Your task to perform on an android device: set an alarm Image 0: 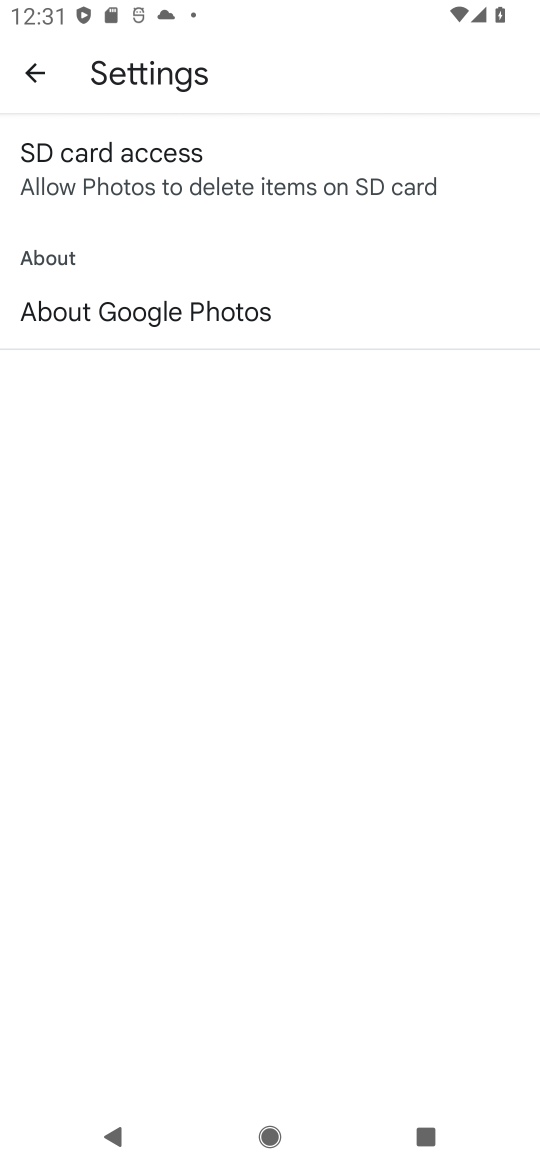
Step 0: press home button
Your task to perform on an android device: set an alarm Image 1: 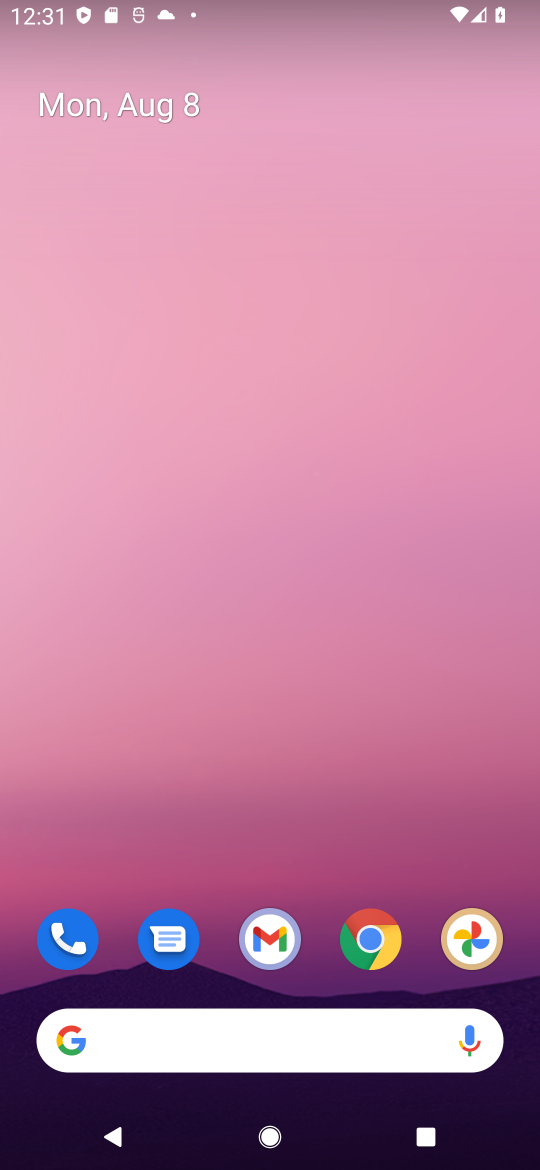
Step 1: drag from (183, 1030) to (423, 169)
Your task to perform on an android device: set an alarm Image 2: 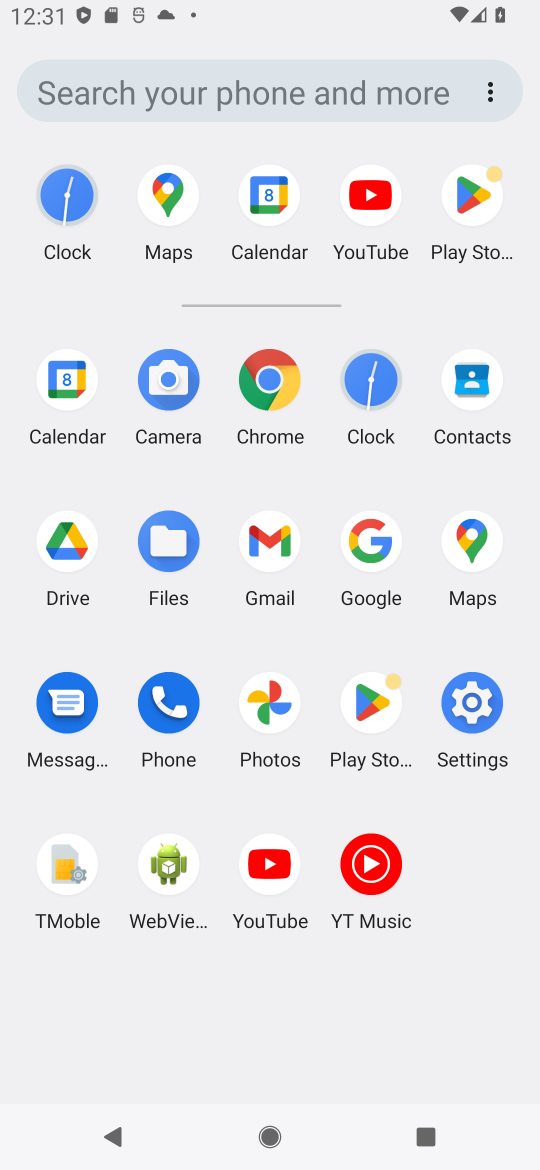
Step 2: click (70, 196)
Your task to perform on an android device: set an alarm Image 3: 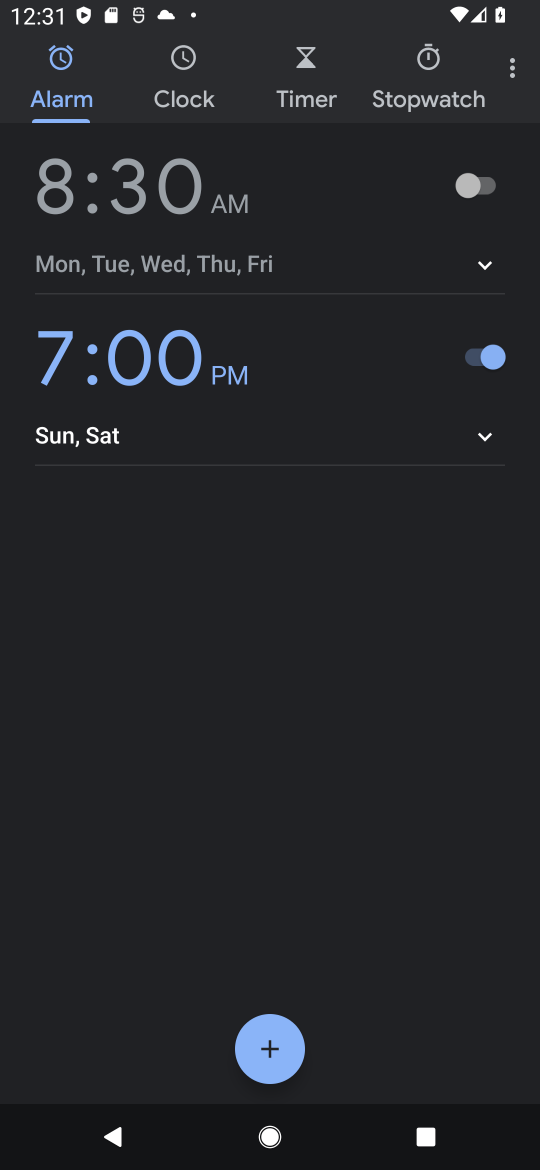
Step 3: click (269, 1045)
Your task to perform on an android device: set an alarm Image 4: 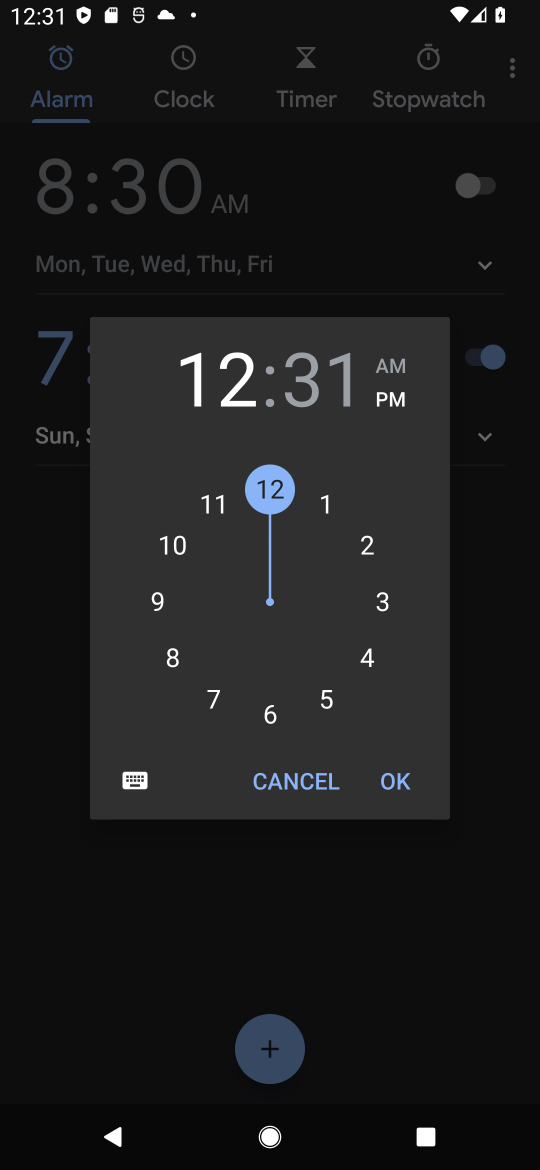
Step 4: click (270, 728)
Your task to perform on an android device: set an alarm Image 5: 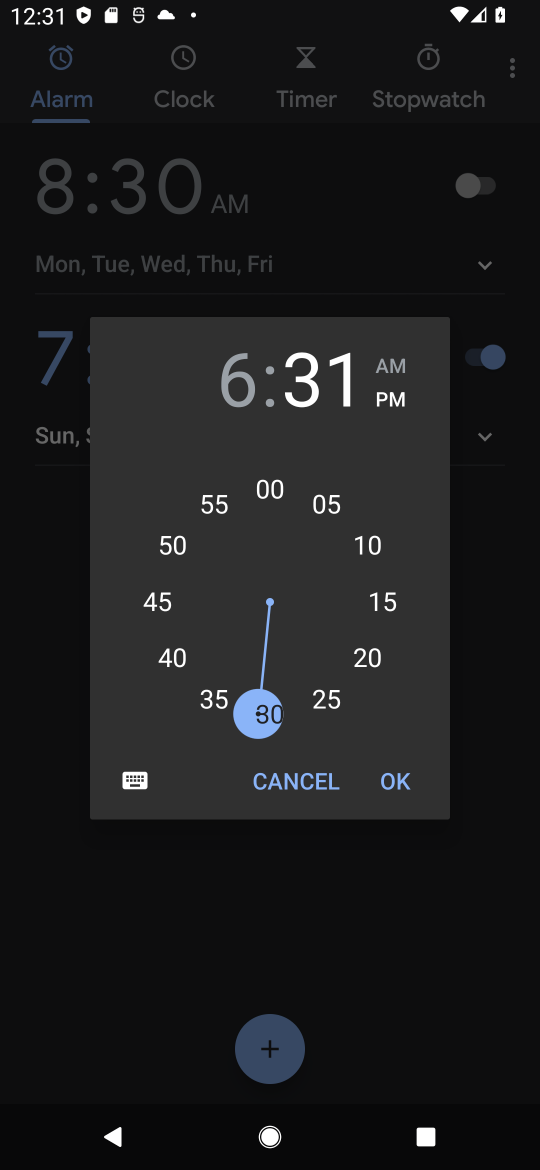
Step 5: click (167, 607)
Your task to perform on an android device: set an alarm Image 6: 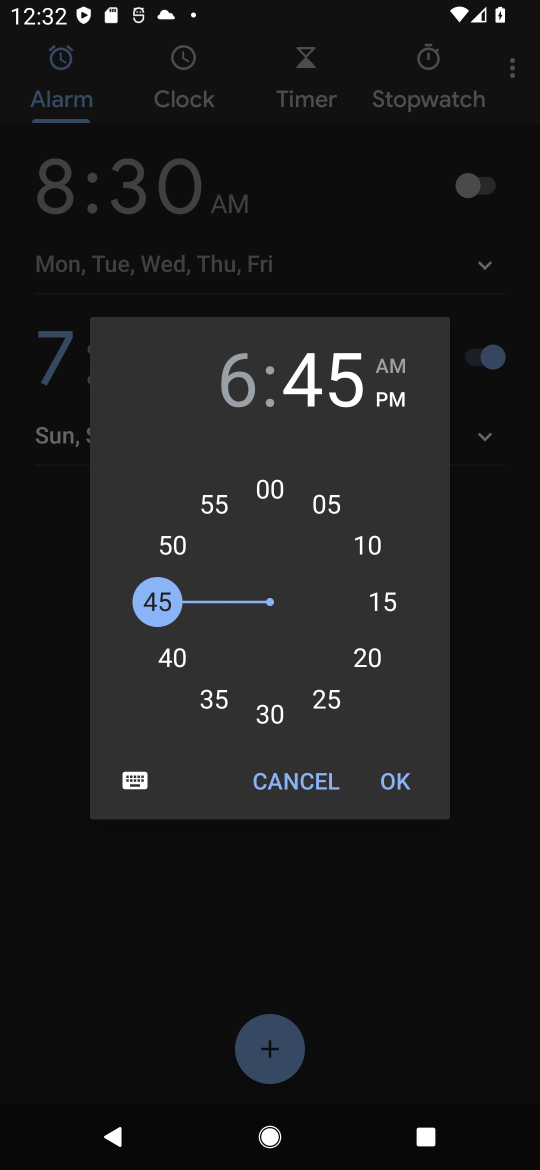
Step 6: click (388, 365)
Your task to perform on an android device: set an alarm Image 7: 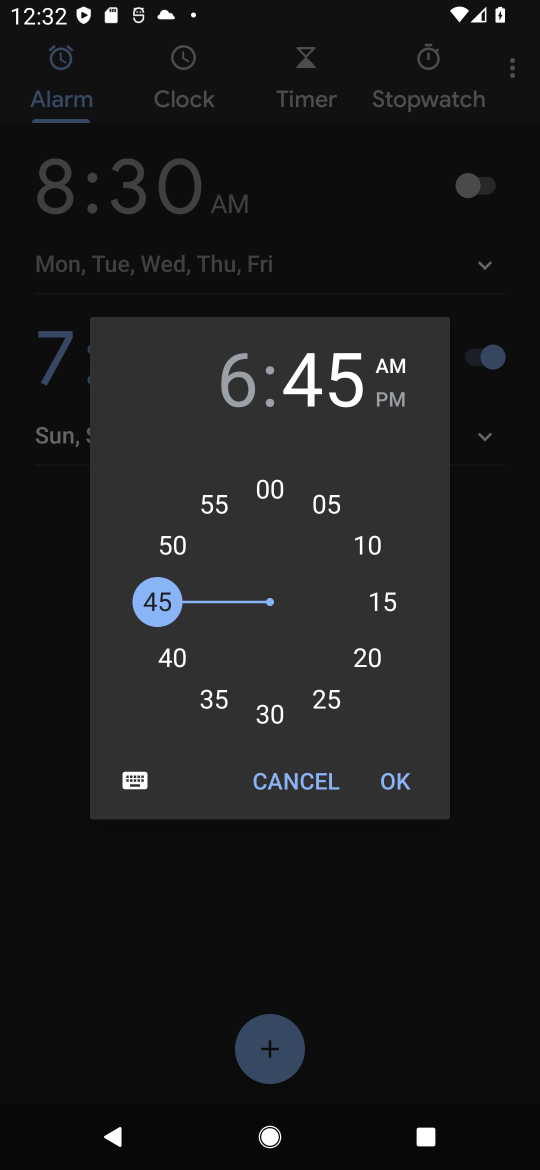
Step 7: click (399, 781)
Your task to perform on an android device: set an alarm Image 8: 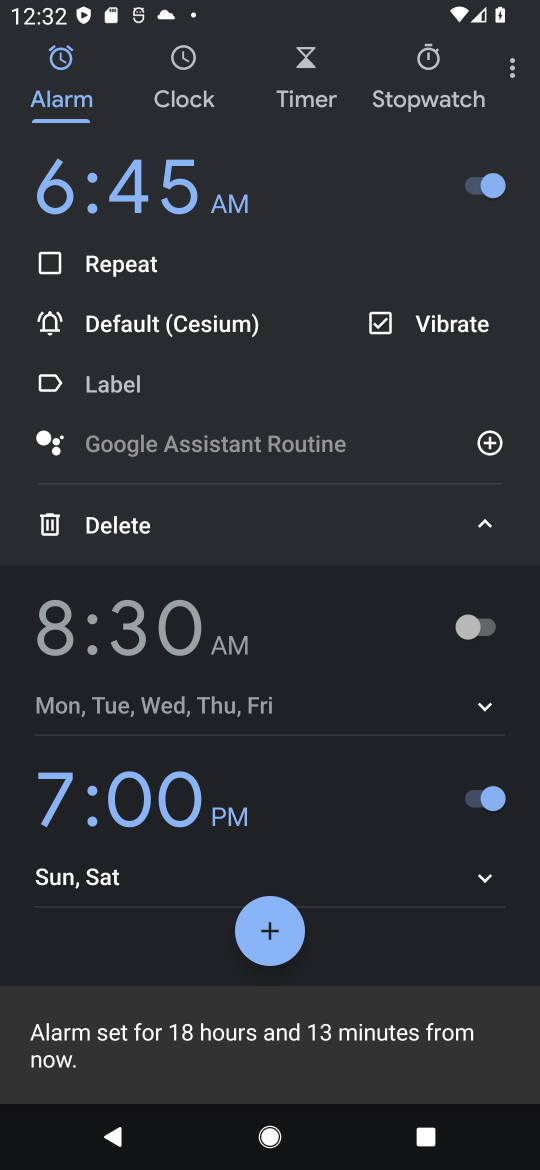
Step 8: click (497, 519)
Your task to perform on an android device: set an alarm Image 9: 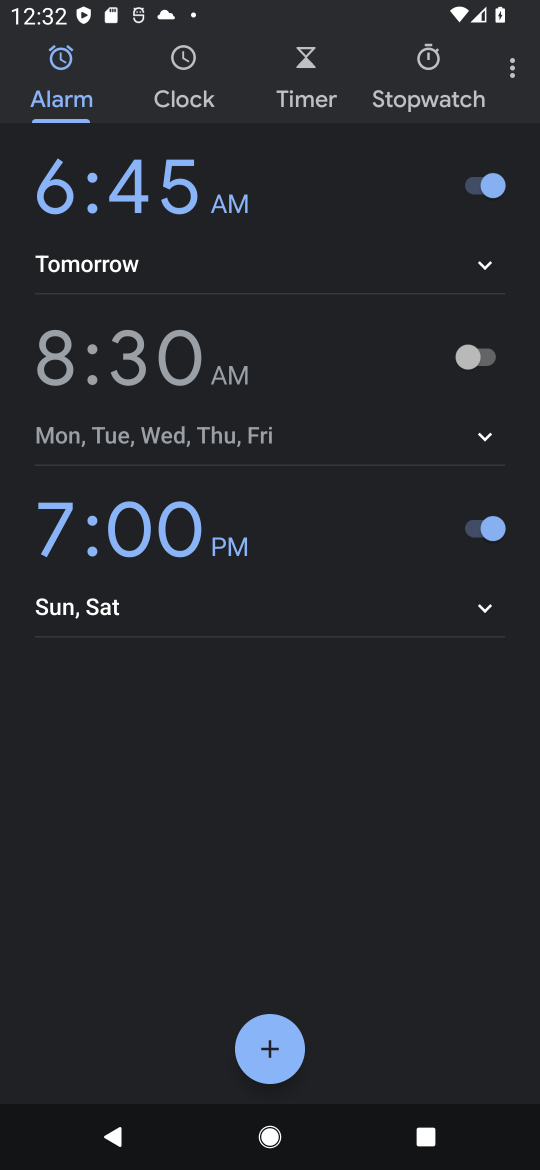
Step 9: task complete